Your task to perform on an android device: Open settings on Google Maps Image 0: 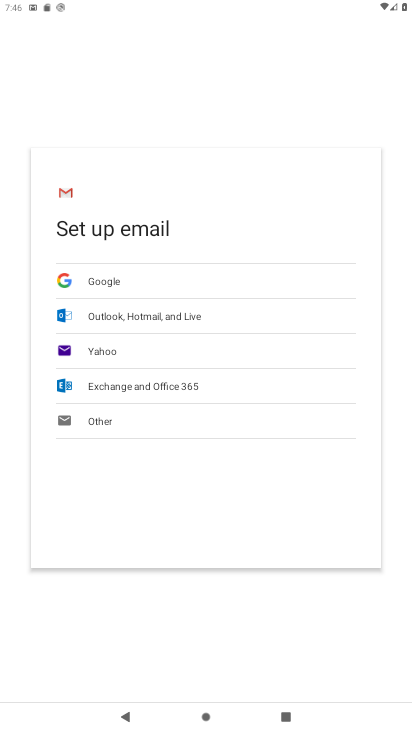
Step 0: press home button
Your task to perform on an android device: Open settings on Google Maps Image 1: 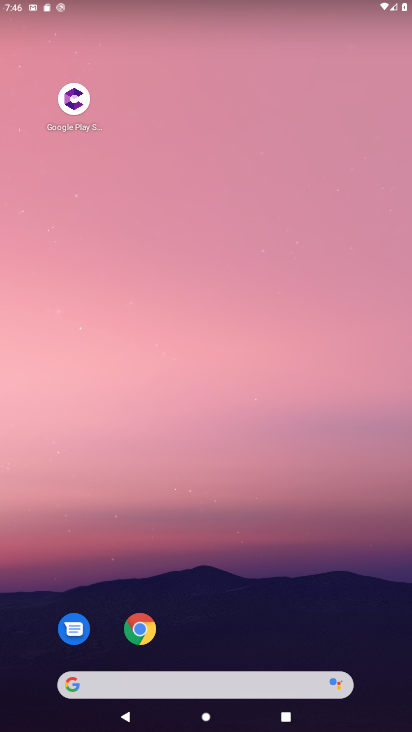
Step 1: drag from (164, 553) to (168, 274)
Your task to perform on an android device: Open settings on Google Maps Image 2: 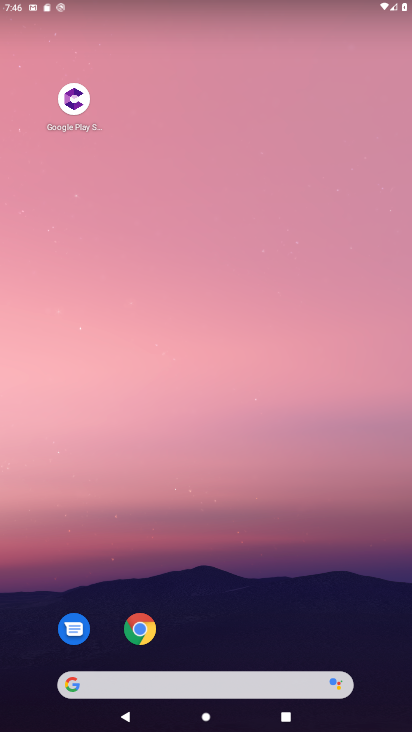
Step 2: drag from (195, 591) to (198, 211)
Your task to perform on an android device: Open settings on Google Maps Image 3: 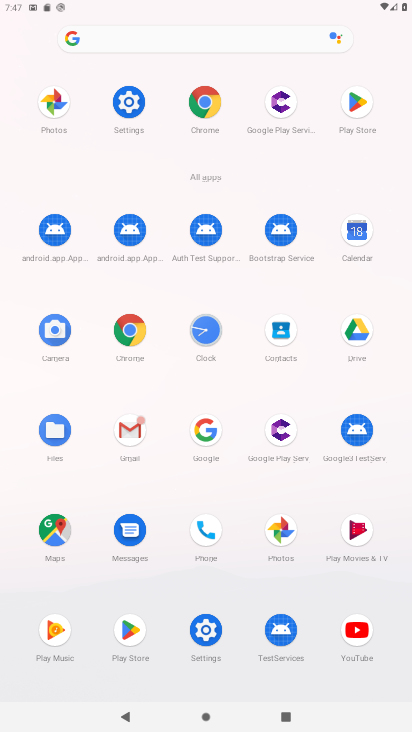
Step 3: click (66, 543)
Your task to perform on an android device: Open settings on Google Maps Image 4: 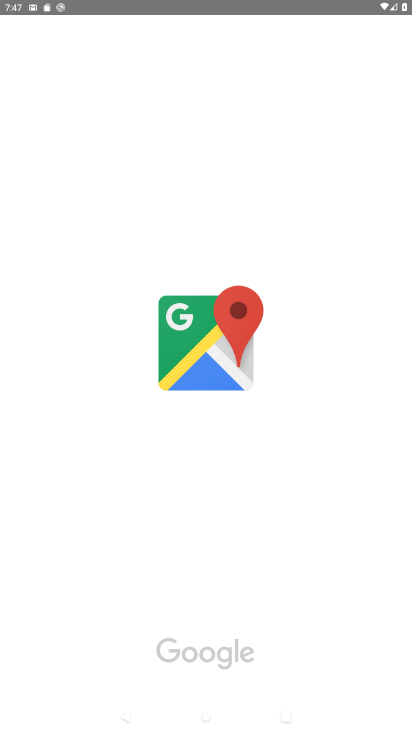
Step 4: click (59, 537)
Your task to perform on an android device: Open settings on Google Maps Image 5: 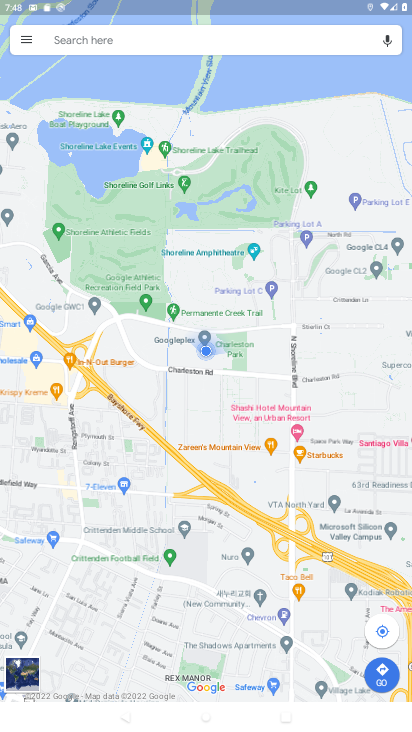
Step 5: task complete